Your task to perform on an android device: Go to Wikipedia Image 0: 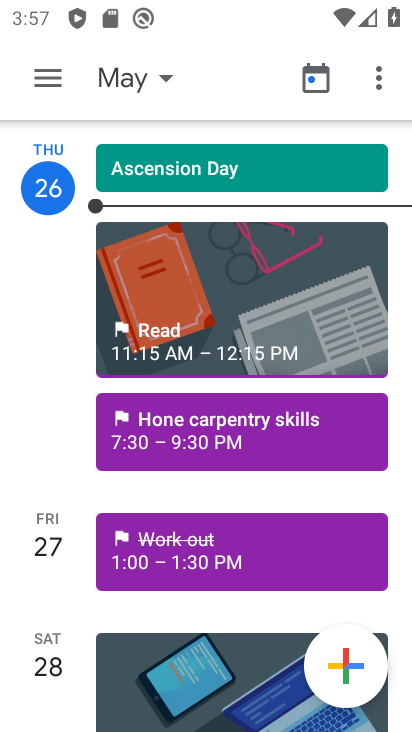
Step 0: press home button
Your task to perform on an android device: Go to Wikipedia Image 1: 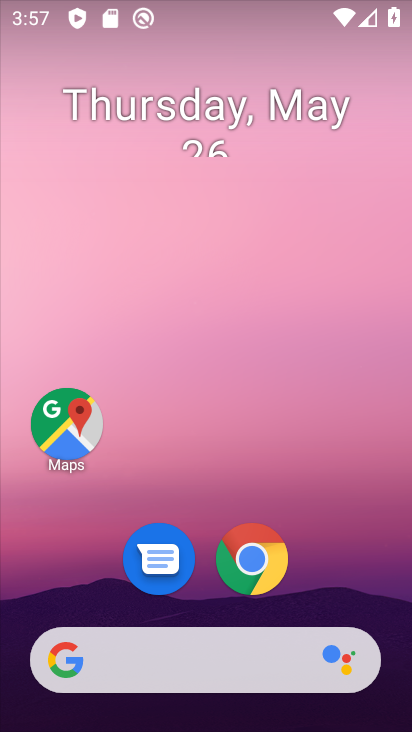
Step 1: click (266, 571)
Your task to perform on an android device: Go to Wikipedia Image 2: 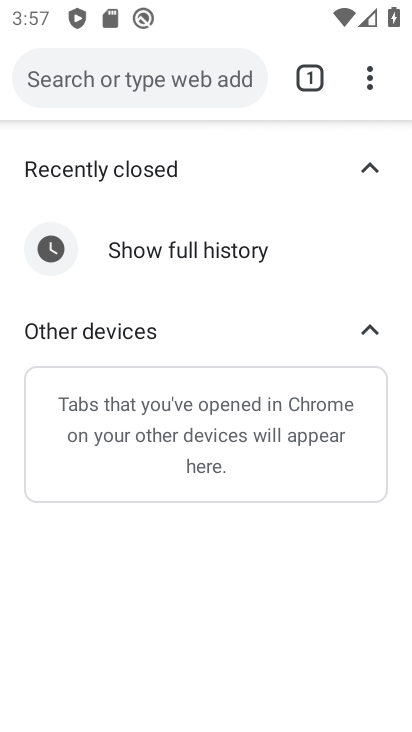
Step 2: click (297, 72)
Your task to perform on an android device: Go to Wikipedia Image 3: 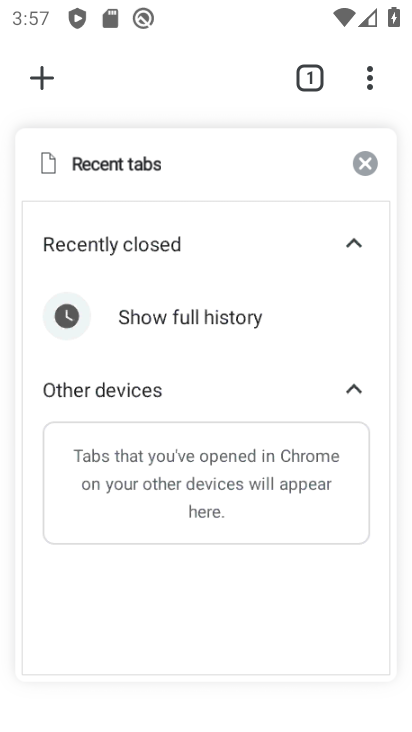
Step 3: click (32, 75)
Your task to perform on an android device: Go to Wikipedia Image 4: 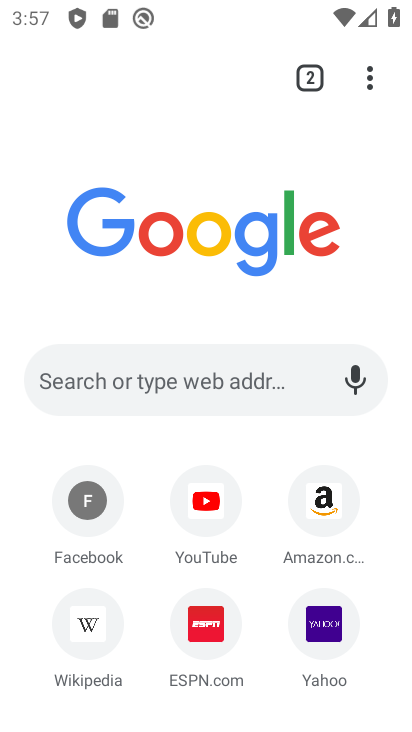
Step 4: click (88, 618)
Your task to perform on an android device: Go to Wikipedia Image 5: 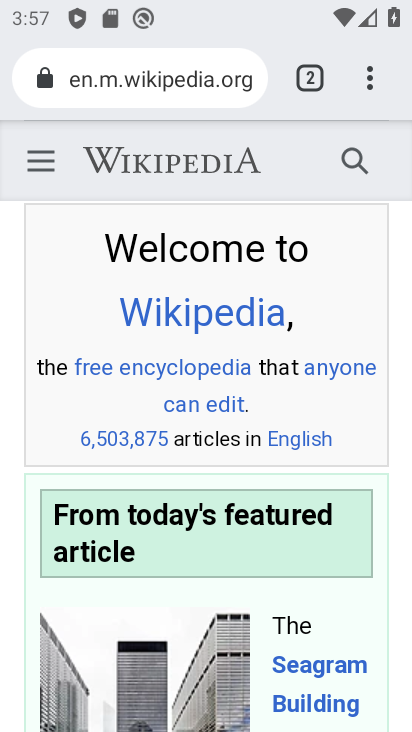
Step 5: task complete